Your task to perform on an android device: Add "jbl flip 4" to the cart on amazon, then select checkout. Image 0: 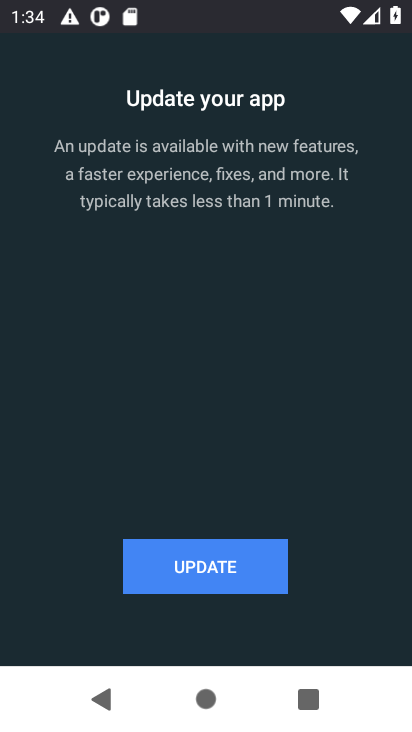
Step 0: press home button
Your task to perform on an android device: Add "jbl flip 4" to the cart on amazon, then select checkout. Image 1: 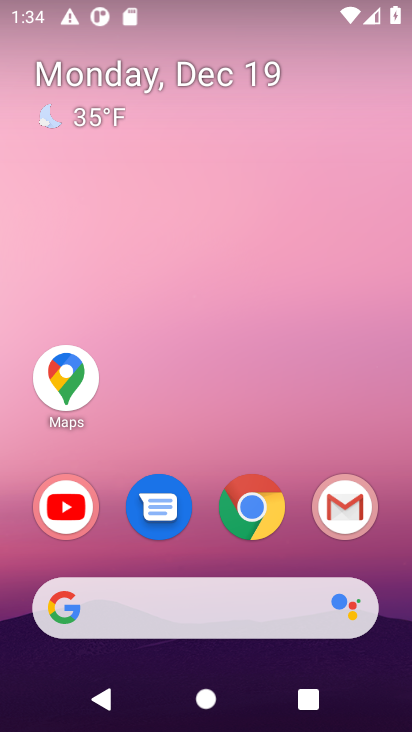
Step 1: click (253, 509)
Your task to perform on an android device: Add "jbl flip 4" to the cart on amazon, then select checkout. Image 2: 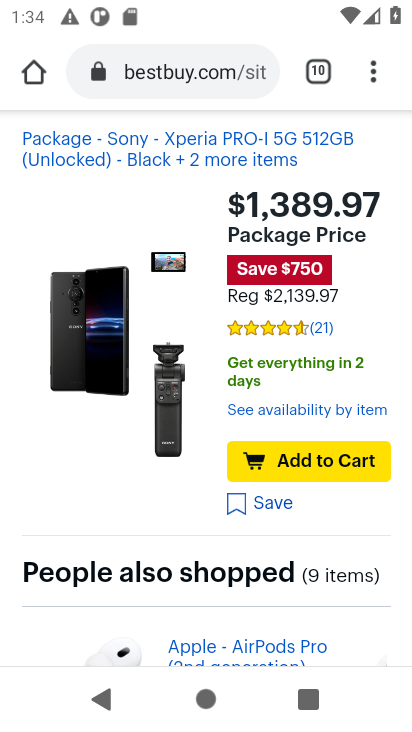
Step 2: click (176, 73)
Your task to perform on an android device: Add "jbl flip 4" to the cart on amazon, then select checkout. Image 3: 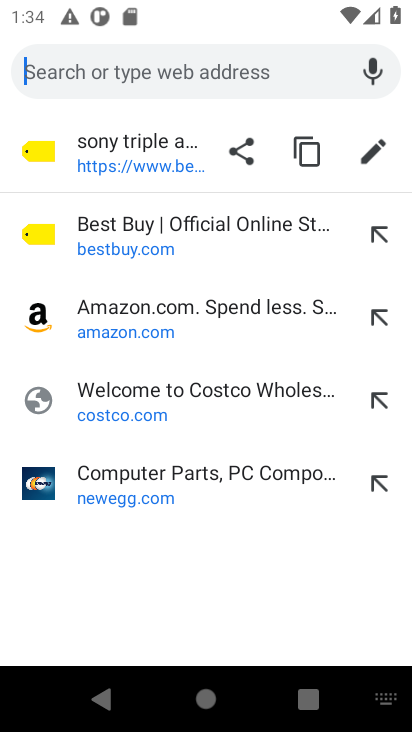
Step 3: click (124, 323)
Your task to perform on an android device: Add "jbl flip 4" to the cart on amazon, then select checkout. Image 4: 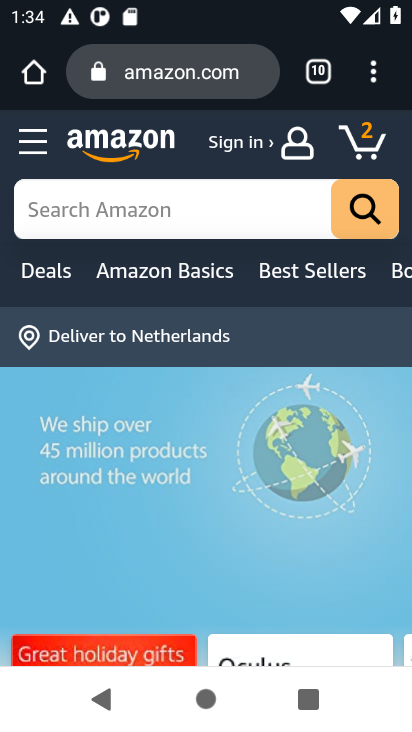
Step 4: click (75, 214)
Your task to perform on an android device: Add "jbl flip 4" to the cart on amazon, then select checkout. Image 5: 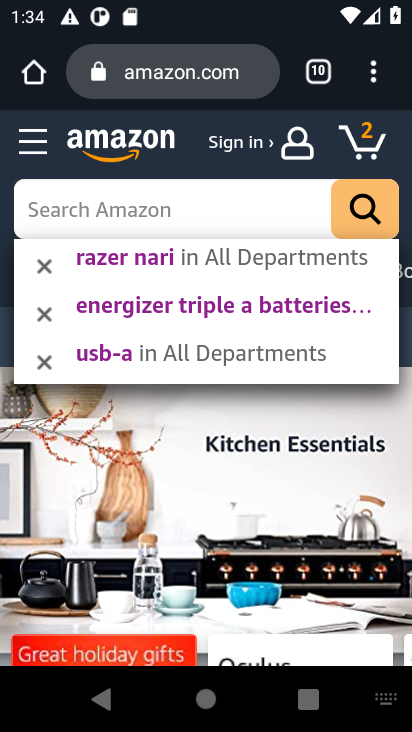
Step 5: type "jbl flip 4"
Your task to perform on an android device: Add "jbl flip 4" to the cart on amazon, then select checkout. Image 6: 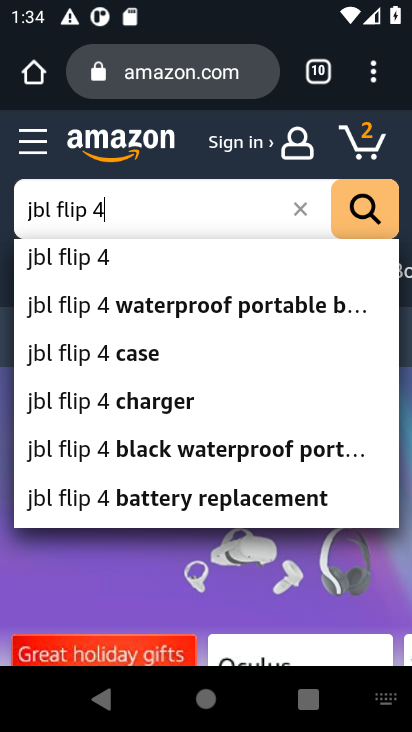
Step 6: click (65, 262)
Your task to perform on an android device: Add "jbl flip 4" to the cart on amazon, then select checkout. Image 7: 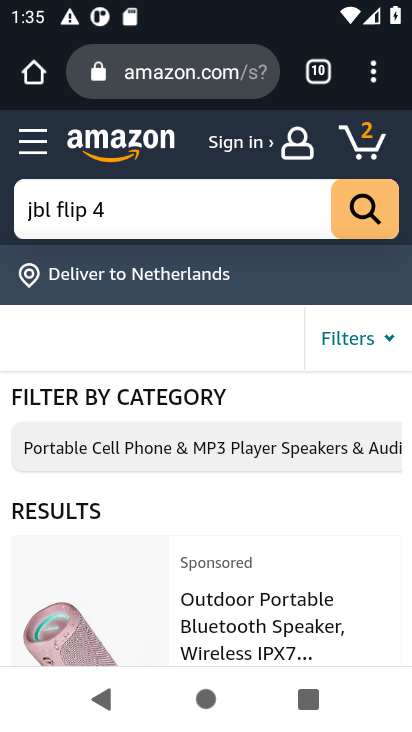
Step 7: drag from (183, 574) to (176, 302)
Your task to perform on an android device: Add "jbl flip 4" to the cart on amazon, then select checkout. Image 8: 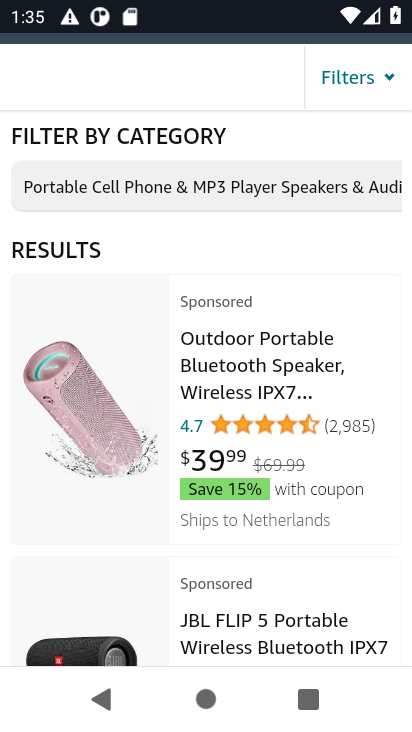
Step 8: drag from (169, 531) to (185, 263)
Your task to perform on an android device: Add "jbl flip 4" to the cart on amazon, then select checkout. Image 9: 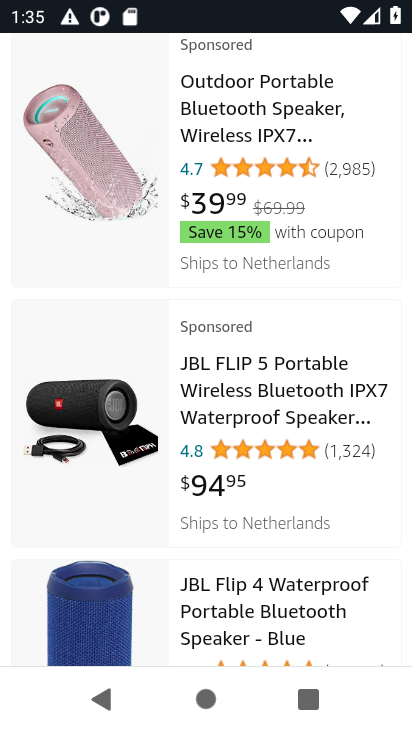
Step 9: drag from (173, 526) to (170, 265)
Your task to perform on an android device: Add "jbl flip 4" to the cart on amazon, then select checkout. Image 10: 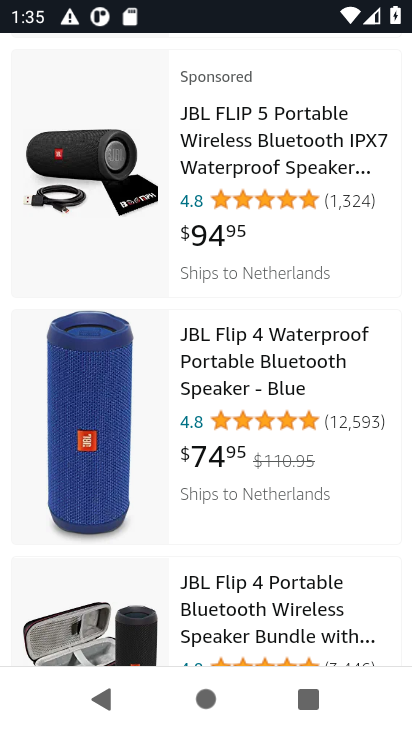
Step 10: click (255, 349)
Your task to perform on an android device: Add "jbl flip 4" to the cart on amazon, then select checkout. Image 11: 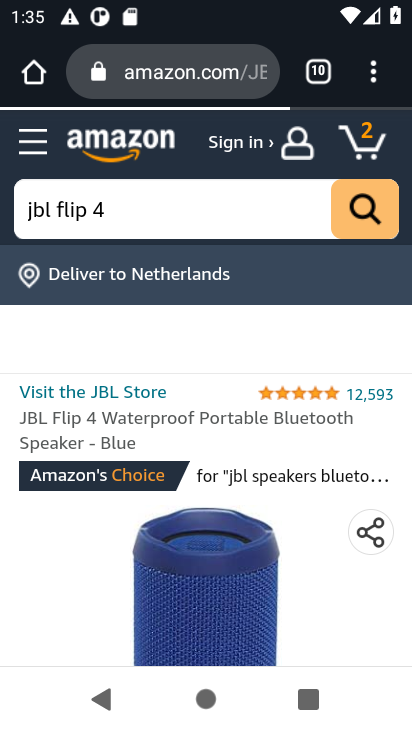
Step 11: drag from (209, 505) to (185, 178)
Your task to perform on an android device: Add "jbl flip 4" to the cart on amazon, then select checkout. Image 12: 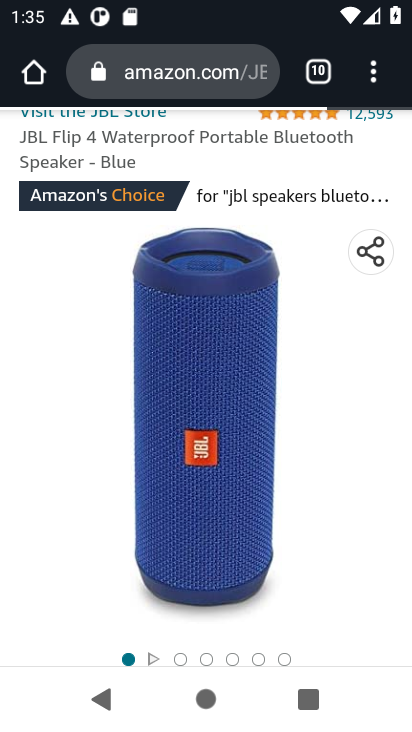
Step 12: drag from (187, 414) to (187, 103)
Your task to perform on an android device: Add "jbl flip 4" to the cart on amazon, then select checkout. Image 13: 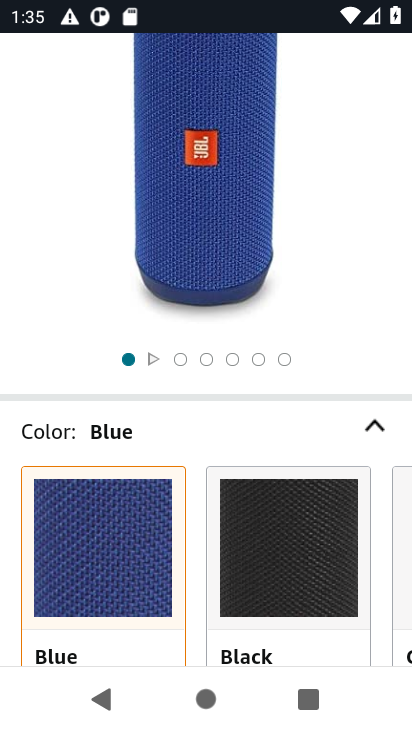
Step 13: drag from (175, 455) to (183, 119)
Your task to perform on an android device: Add "jbl flip 4" to the cart on amazon, then select checkout. Image 14: 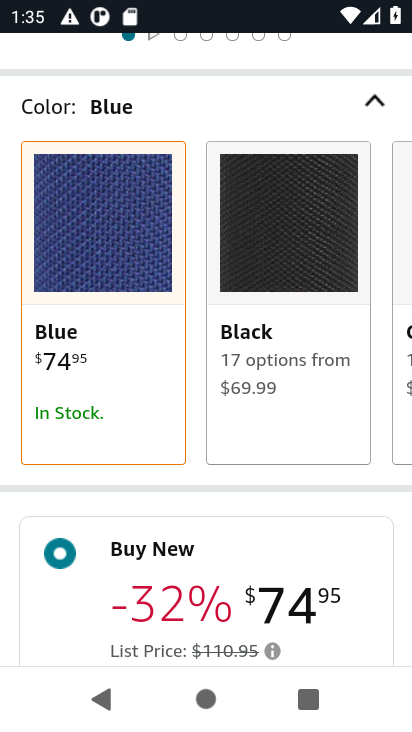
Step 14: drag from (182, 442) to (190, 110)
Your task to perform on an android device: Add "jbl flip 4" to the cart on amazon, then select checkout. Image 15: 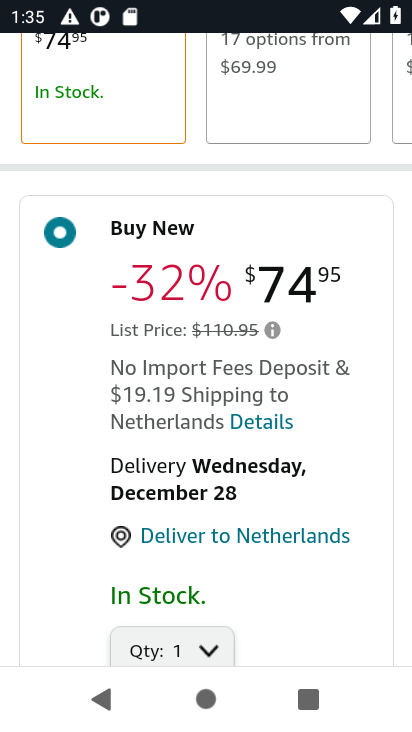
Step 15: drag from (197, 447) to (199, 128)
Your task to perform on an android device: Add "jbl flip 4" to the cart on amazon, then select checkout. Image 16: 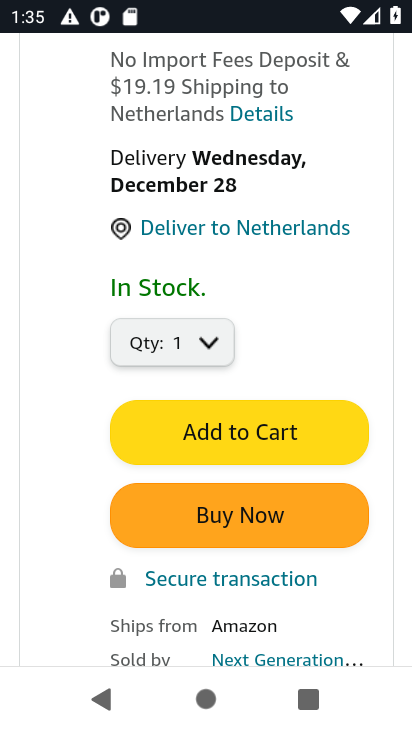
Step 16: click (212, 431)
Your task to perform on an android device: Add "jbl flip 4" to the cart on amazon, then select checkout. Image 17: 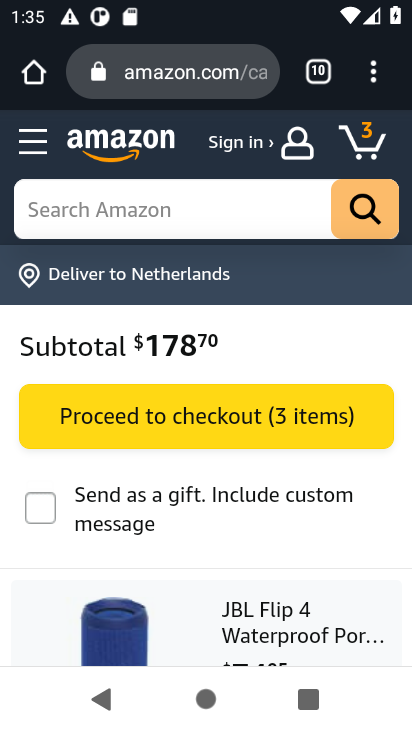
Step 17: click (212, 424)
Your task to perform on an android device: Add "jbl flip 4" to the cart on amazon, then select checkout. Image 18: 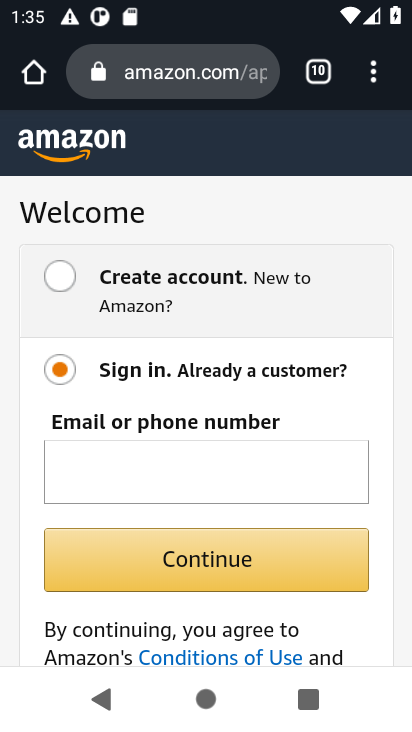
Step 18: task complete